Your task to perform on an android device: Open Reddit.com Image 0: 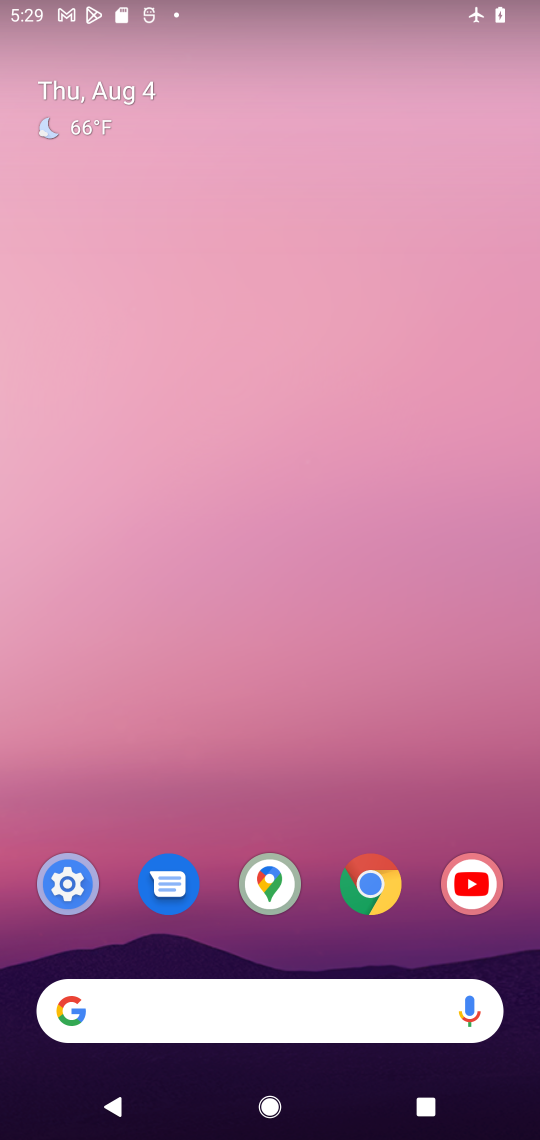
Step 0: click (356, 901)
Your task to perform on an android device: Open Reddit.com Image 1: 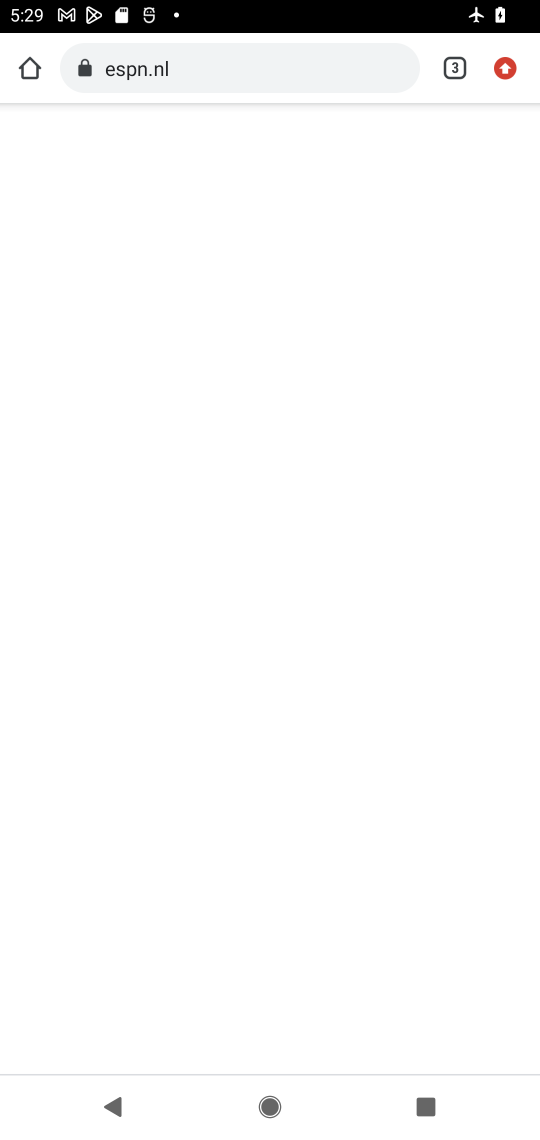
Step 1: click (266, 74)
Your task to perform on an android device: Open Reddit.com Image 2: 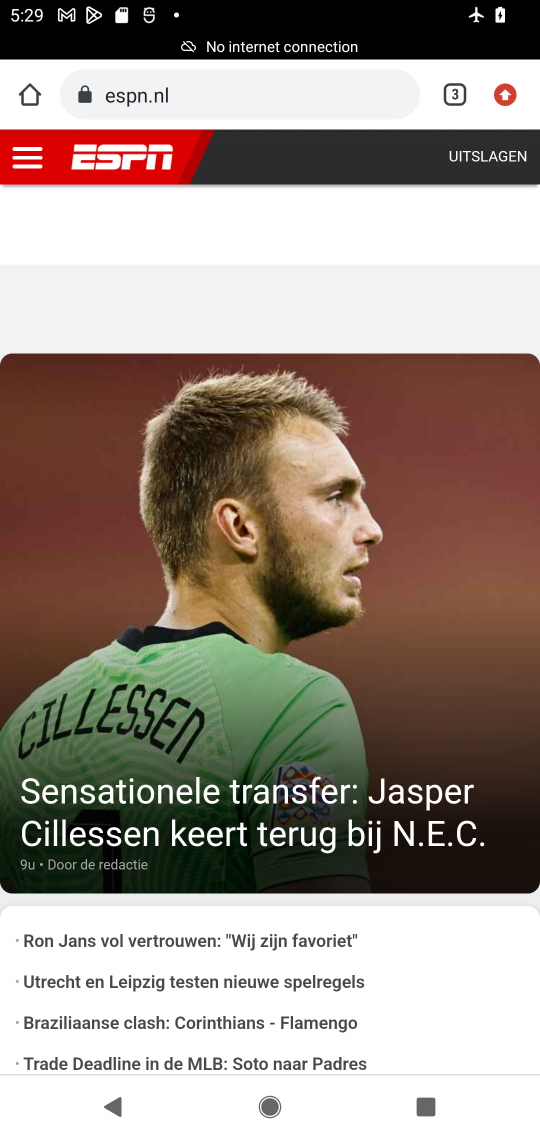
Step 2: click (367, 101)
Your task to perform on an android device: Open Reddit.com Image 3: 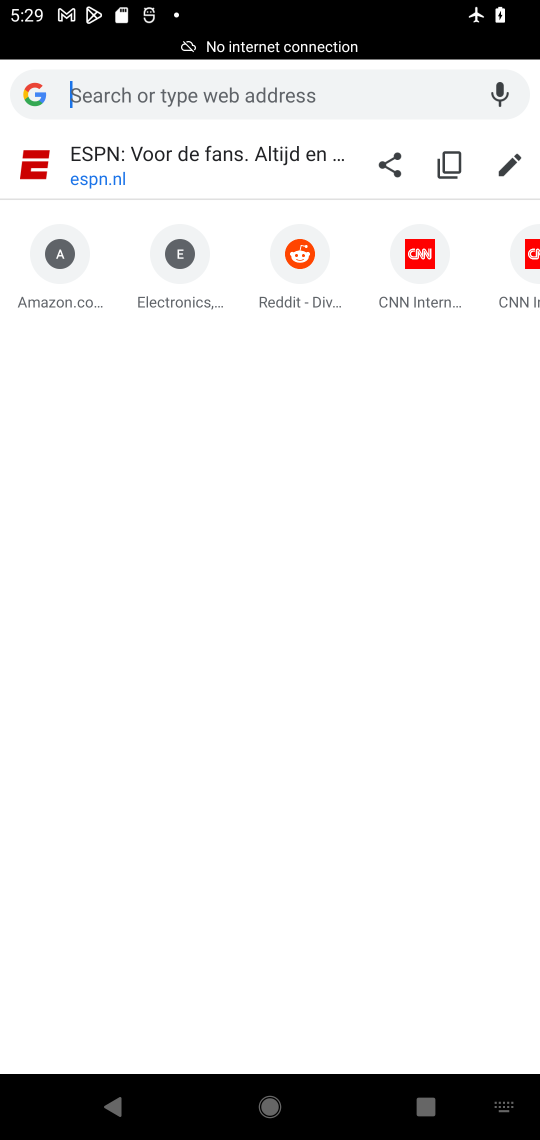
Step 3: task complete